Your task to perform on an android device: Check the news Image 0: 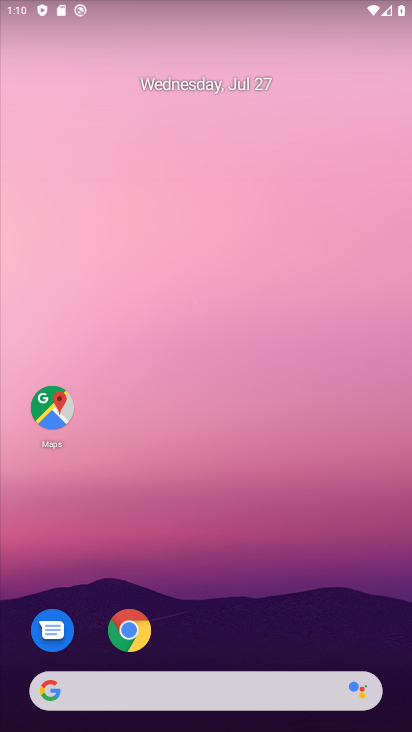
Step 0: click (185, 685)
Your task to perform on an android device: Check the news Image 1: 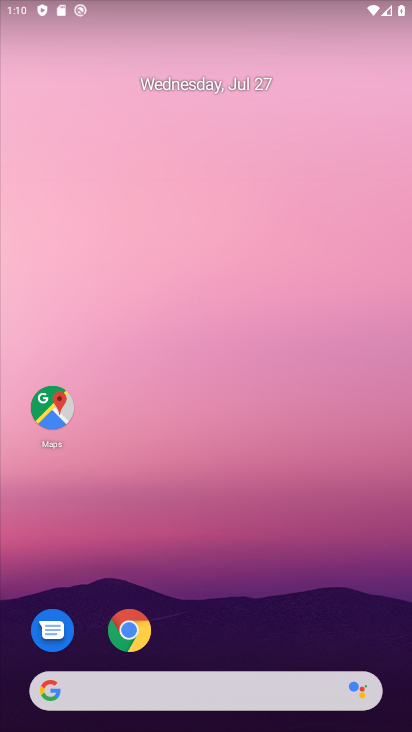
Step 1: click (185, 685)
Your task to perform on an android device: Check the news Image 2: 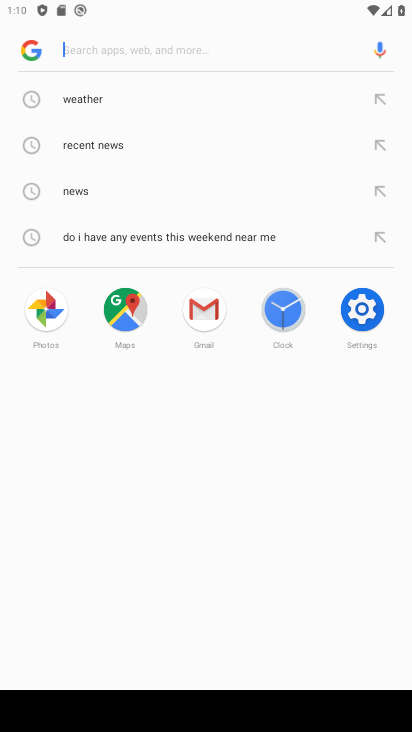
Step 2: click (70, 191)
Your task to perform on an android device: Check the news Image 3: 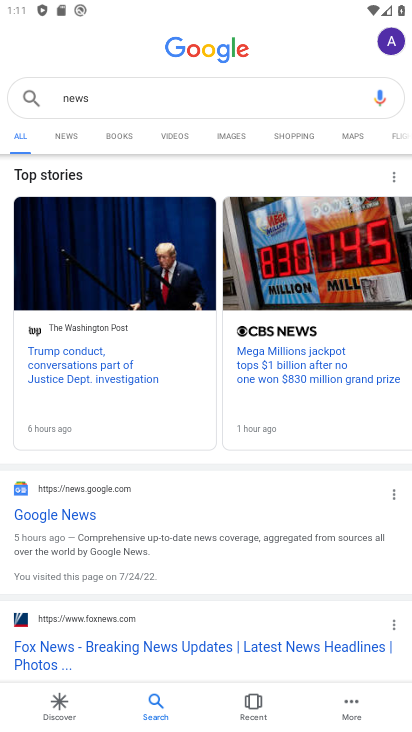
Step 3: task complete